Your task to perform on an android device: Search for flights from London to Paris Image 0: 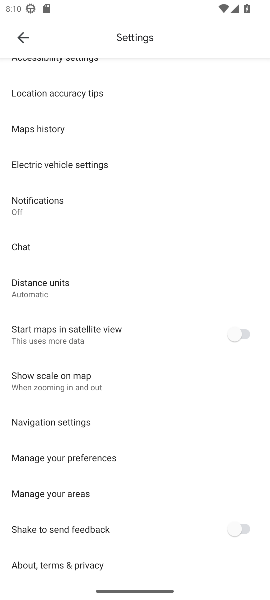
Step 0: press home button
Your task to perform on an android device: Search for flights from London to Paris Image 1: 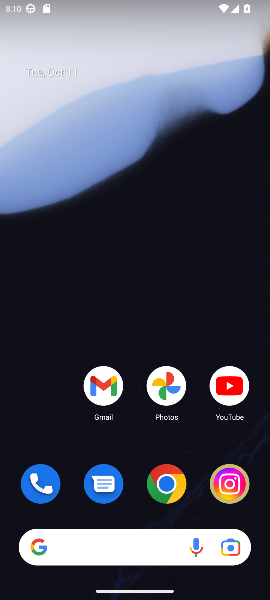
Step 1: click (167, 484)
Your task to perform on an android device: Search for flights from London to Paris Image 2: 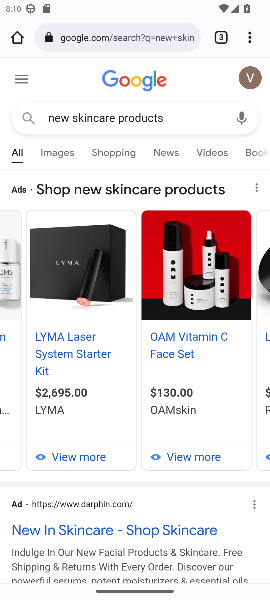
Step 2: click (162, 35)
Your task to perform on an android device: Search for flights from London to Paris Image 3: 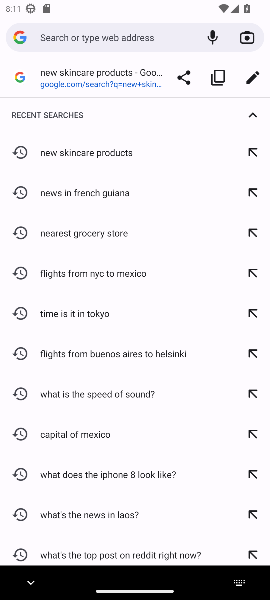
Step 3: type "flights from London to Paris"
Your task to perform on an android device: Search for flights from London to Paris Image 4: 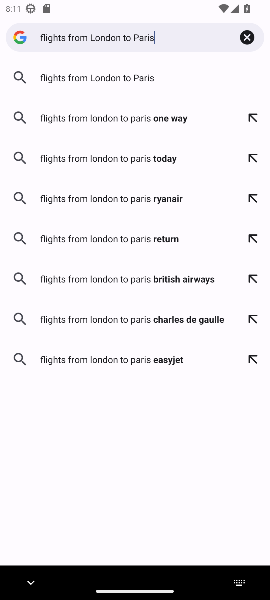
Step 4: click (140, 81)
Your task to perform on an android device: Search for flights from London to Paris Image 5: 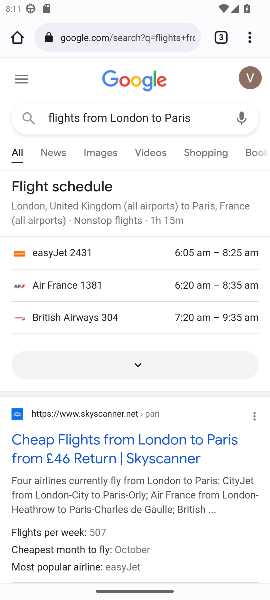
Step 5: click (139, 363)
Your task to perform on an android device: Search for flights from London to Paris Image 6: 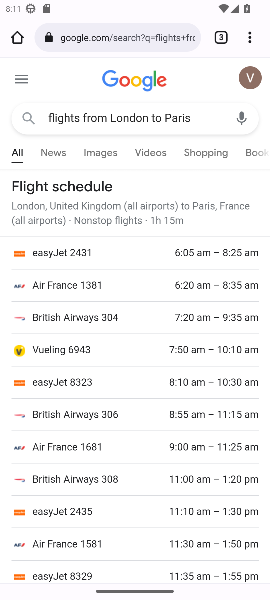
Step 6: task complete